Your task to perform on an android device: read, delete, or share a saved page in the chrome app Image 0: 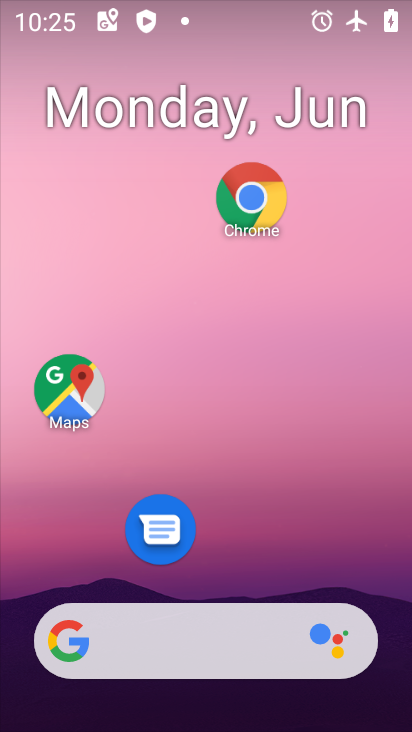
Step 0: click (250, 222)
Your task to perform on an android device: read, delete, or share a saved page in the chrome app Image 1: 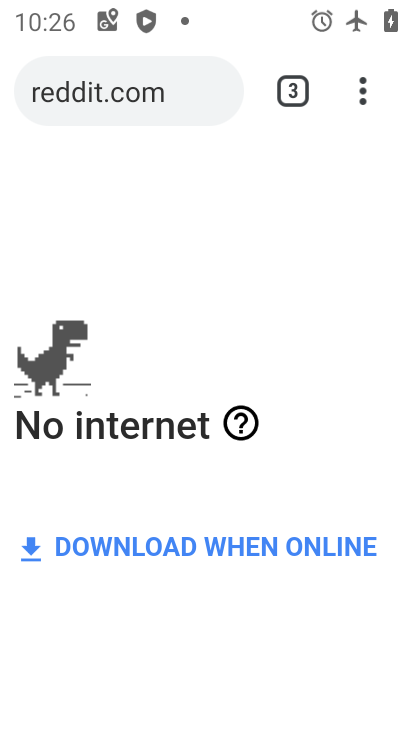
Step 1: click (359, 106)
Your task to perform on an android device: read, delete, or share a saved page in the chrome app Image 2: 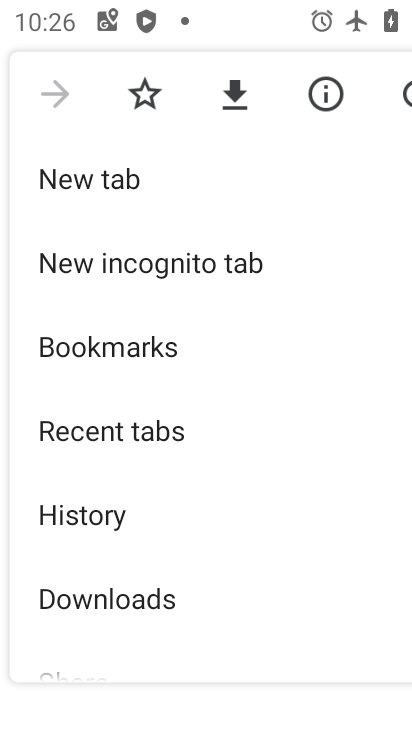
Step 2: drag from (199, 569) to (199, 366)
Your task to perform on an android device: read, delete, or share a saved page in the chrome app Image 3: 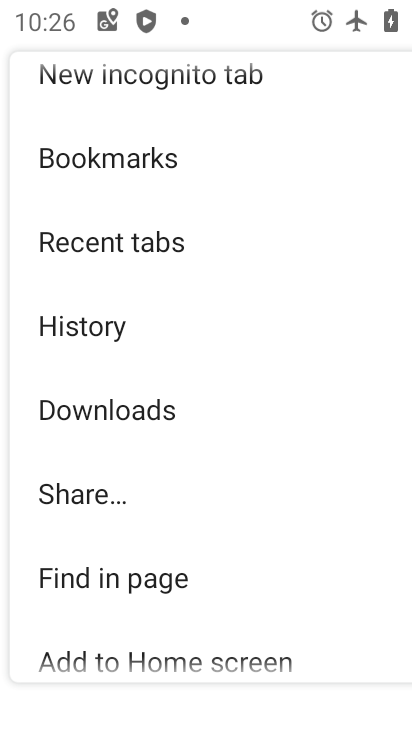
Step 3: drag from (129, 595) to (137, 364)
Your task to perform on an android device: read, delete, or share a saved page in the chrome app Image 4: 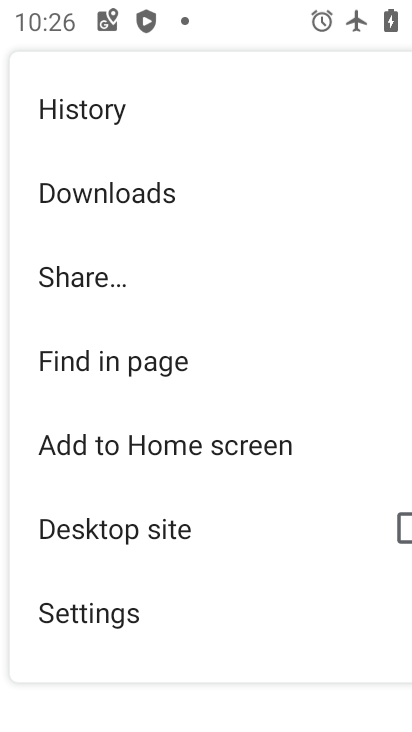
Step 4: click (120, 201)
Your task to perform on an android device: read, delete, or share a saved page in the chrome app Image 5: 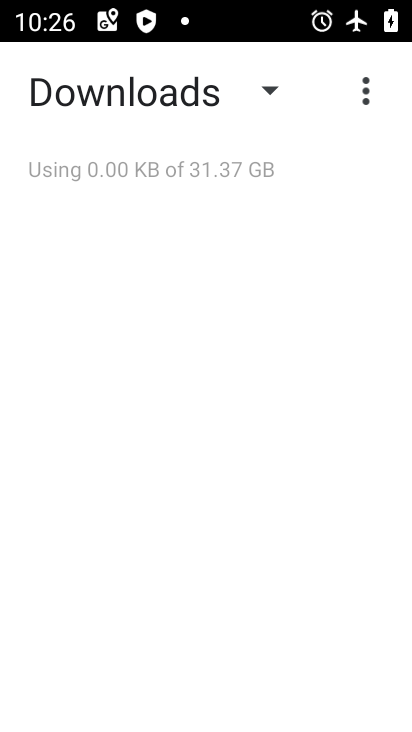
Step 5: click (263, 86)
Your task to perform on an android device: read, delete, or share a saved page in the chrome app Image 6: 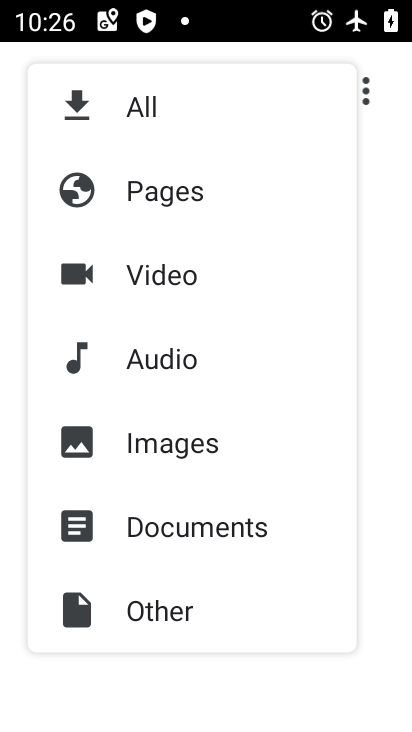
Step 6: click (159, 182)
Your task to perform on an android device: read, delete, or share a saved page in the chrome app Image 7: 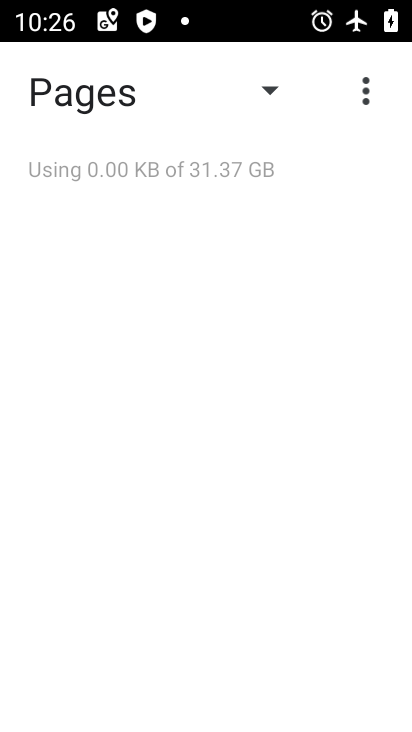
Step 7: task complete